Your task to perform on an android device: open a bookmark in the chrome app Image 0: 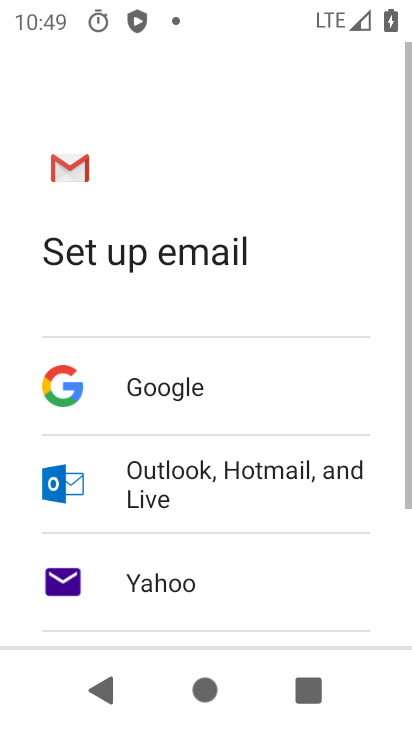
Step 0: press home button
Your task to perform on an android device: open a bookmark in the chrome app Image 1: 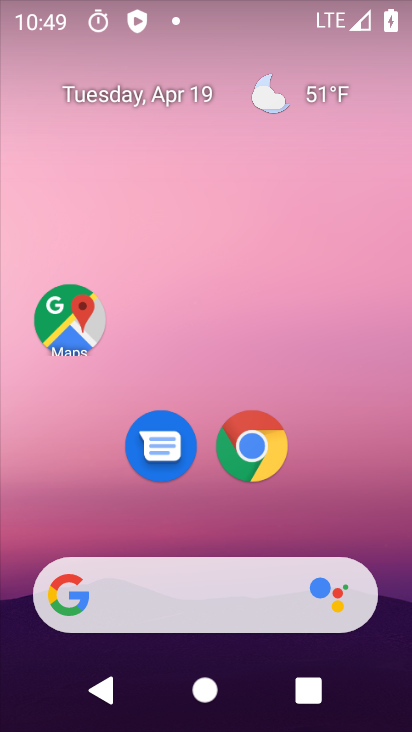
Step 1: click (257, 453)
Your task to perform on an android device: open a bookmark in the chrome app Image 2: 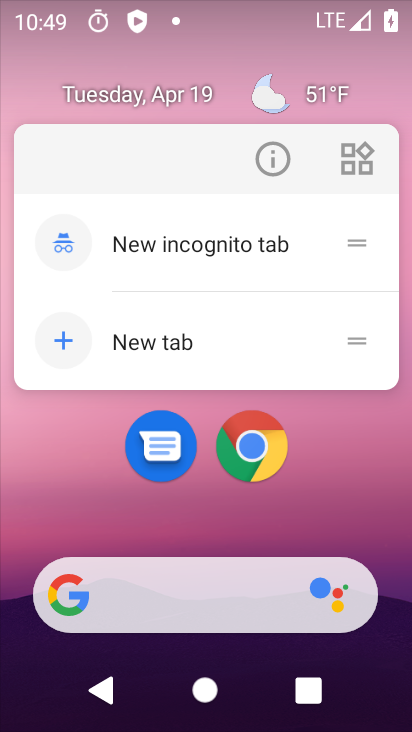
Step 2: click (257, 453)
Your task to perform on an android device: open a bookmark in the chrome app Image 3: 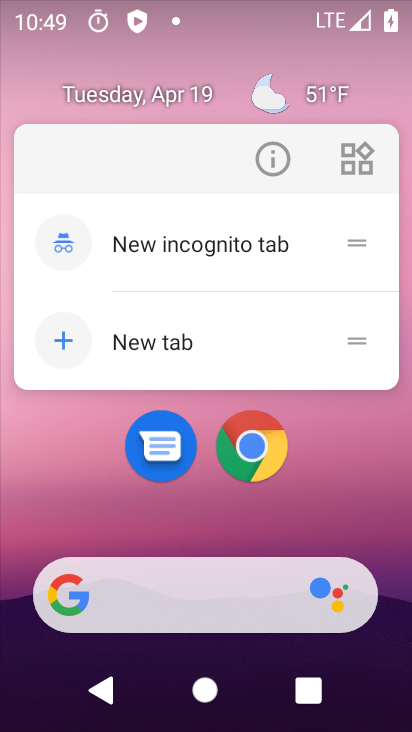
Step 3: click (257, 453)
Your task to perform on an android device: open a bookmark in the chrome app Image 4: 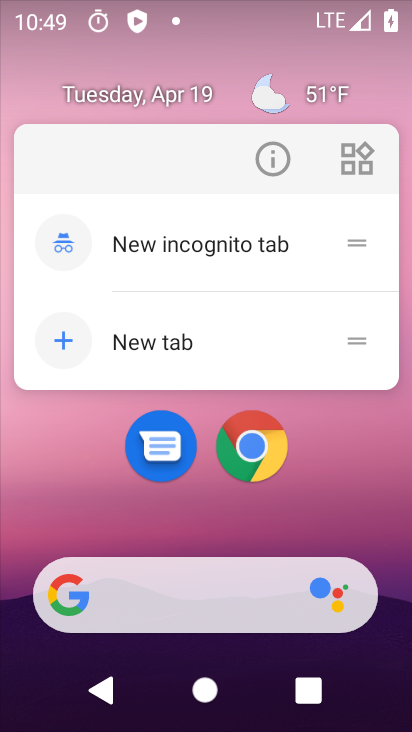
Step 4: click (257, 453)
Your task to perform on an android device: open a bookmark in the chrome app Image 5: 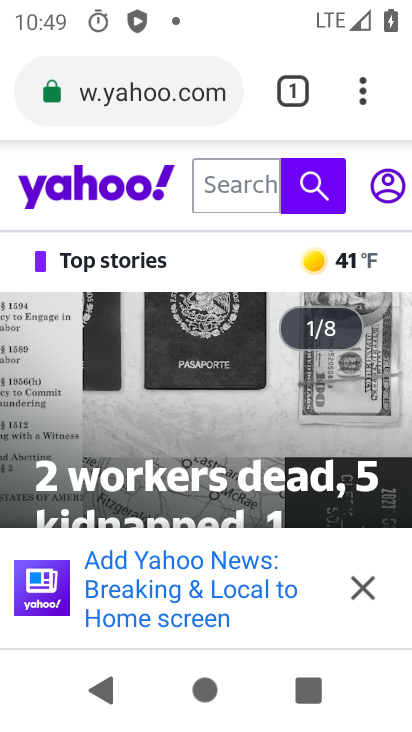
Step 5: click (353, 92)
Your task to perform on an android device: open a bookmark in the chrome app Image 6: 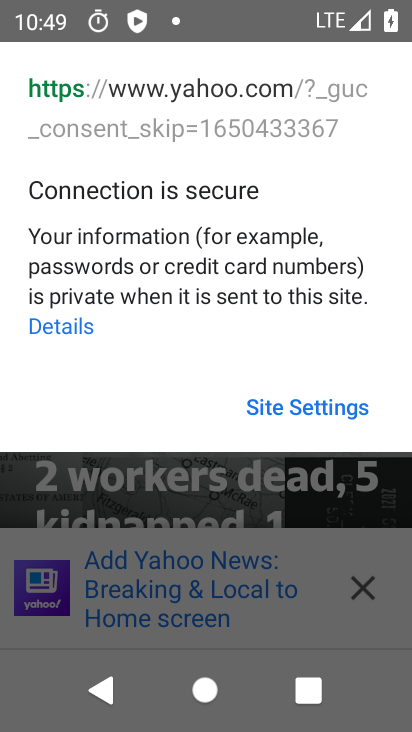
Step 6: click (255, 408)
Your task to perform on an android device: open a bookmark in the chrome app Image 7: 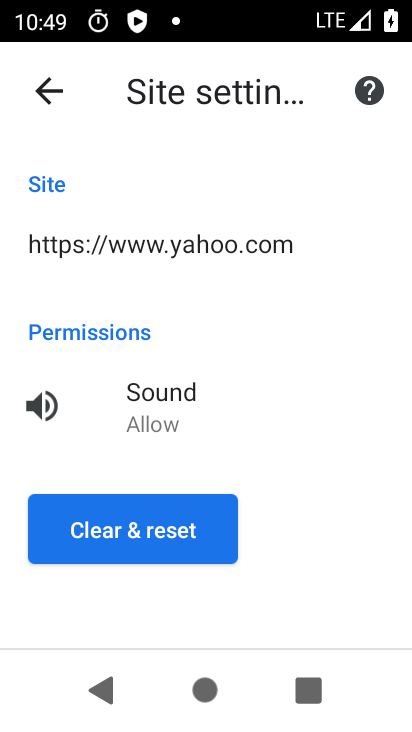
Step 7: click (42, 84)
Your task to perform on an android device: open a bookmark in the chrome app Image 8: 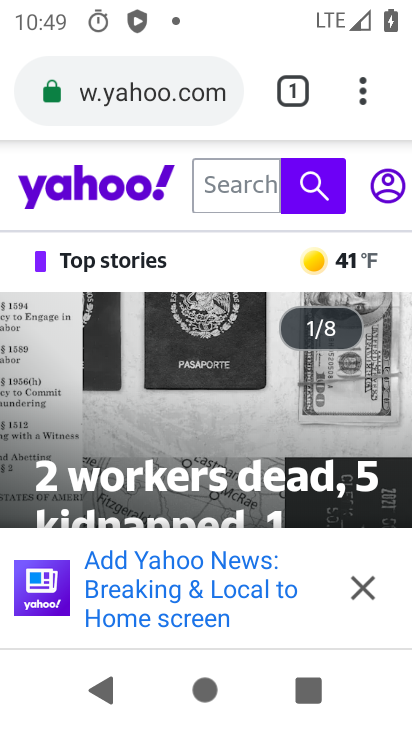
Step 8: click (363, 84)
Your task to perform on an android device: open a bookmark in the chrome app Image 9: 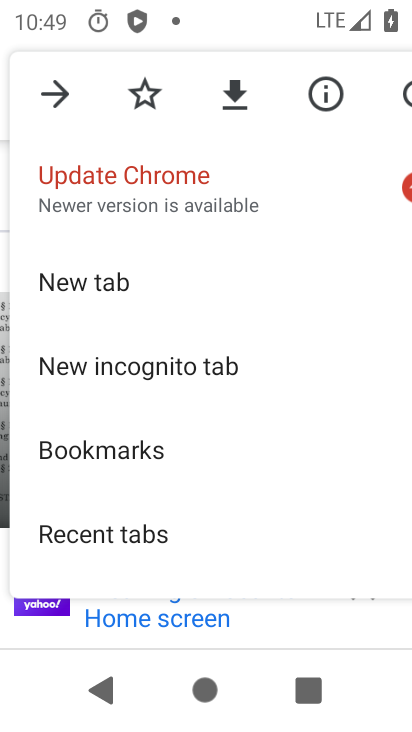
Step 9: click (109, 444)
Your task to perform on an android device: open a bookmark in the chrome app Image 10: 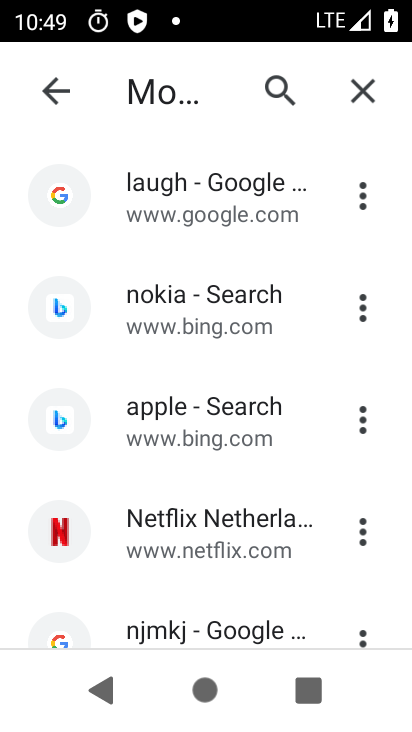
Step 10: click (181, 529)
Your task to perform on an android device: open a bookmark in the chrome app Image 11: 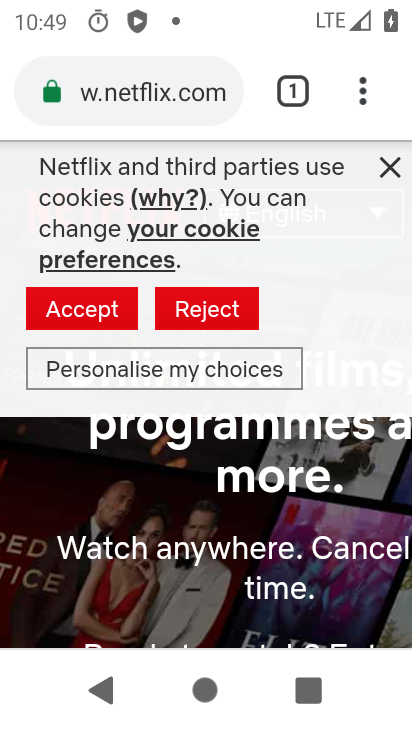
Step 11: task complete